Your task to perform on an android device: turn off priority inbox in the gmail app Image 0: 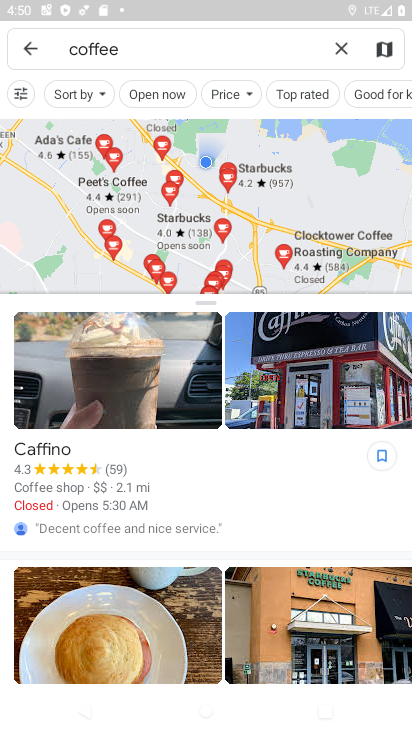
Step 0: press home button
Your task to perform on an android device: turn off priority inbox in the gmail app Image 1: 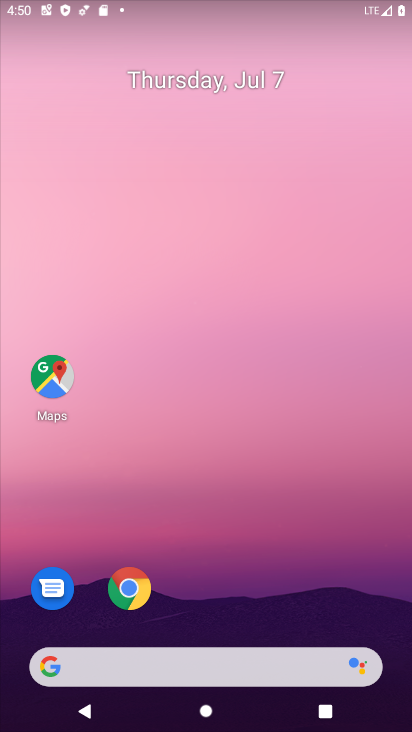
Step 1: drag from (349, 665) to (349, 56)
Your task to perform on an android device: turn off priority inbox in the gmail app Image 2: 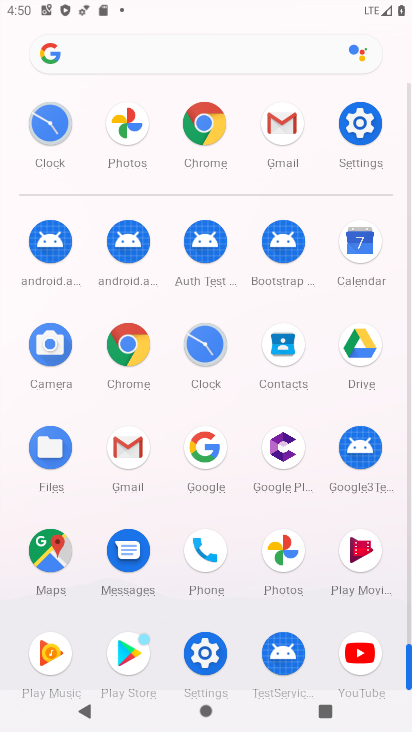
Step 2: click (136, 453)
Your task to perform on an android device: turn off priority inbox in the gmail app Image 3: 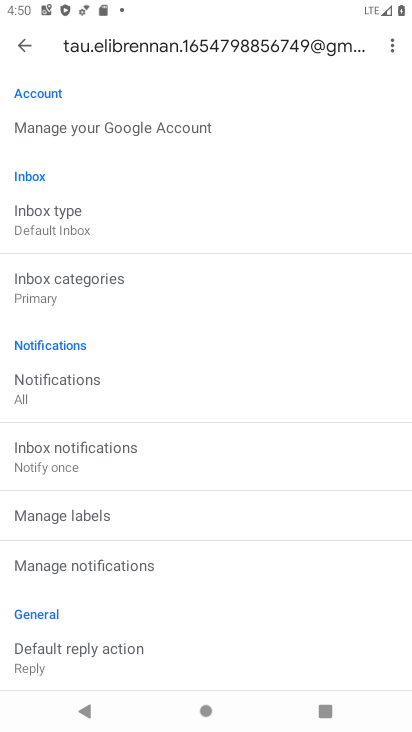
Step 3: click (116, 224)
Your task to perform on an android device: turn off priority inbox in the gmail app Image 4: 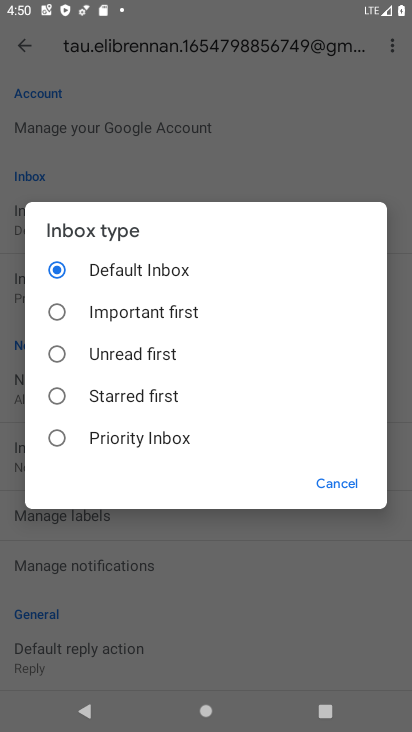
Step 4: task complete